Your task to perform on an android device: turn off improve location accuracy Image 0: 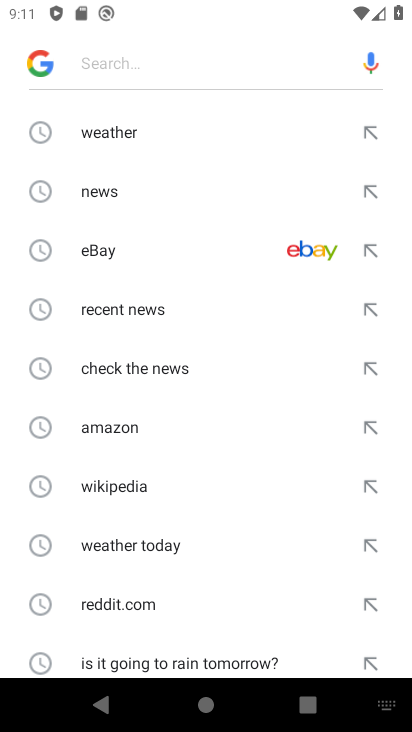
Step 0: press home button
Your task to perform on an android device: turn off improve location accuracy Image 1: 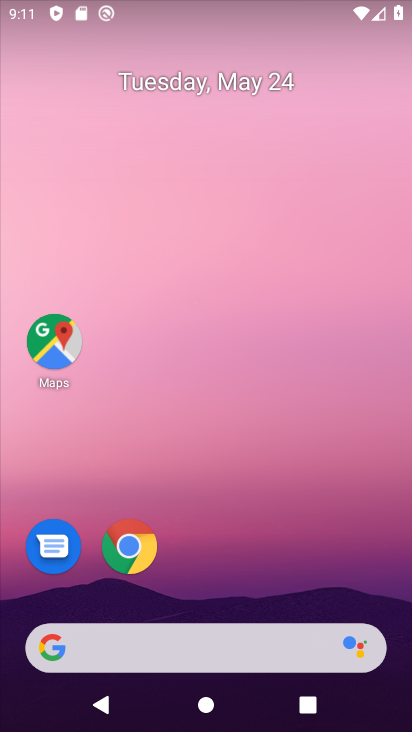
Step 1: drag from (263, 517) to (223, 2)
Your task to perform on an android device: turn off improve location accuracy Image 2: 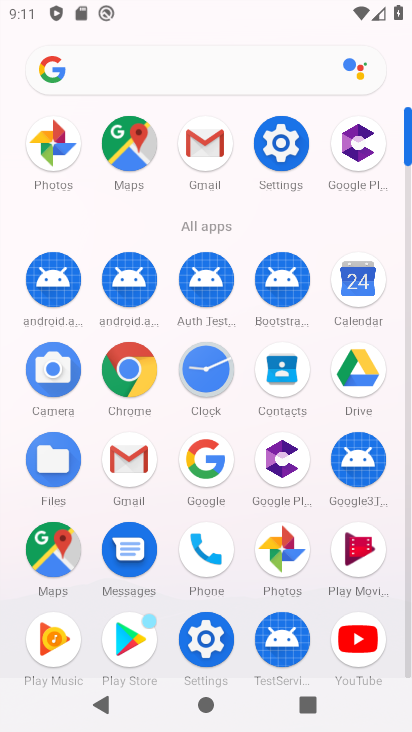
Step 2: click (278, 144)
Your task to perform on an android device: turn off improve location accuracy Image 3: 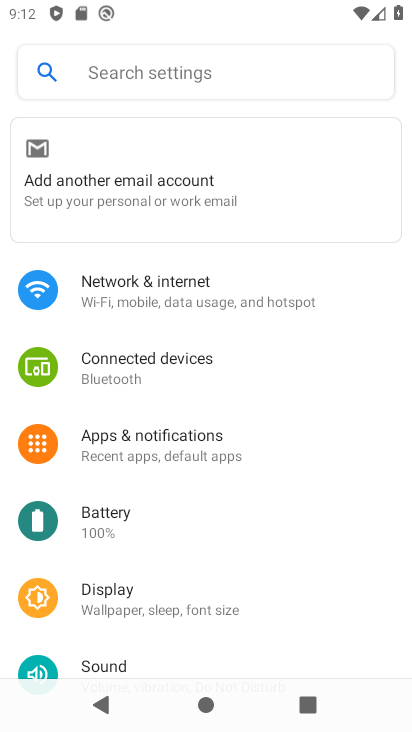
Step 3: drag from (259, 546) to (245, 236)
Your task to perform on an android device: turn off improve location accuracy Image 4: 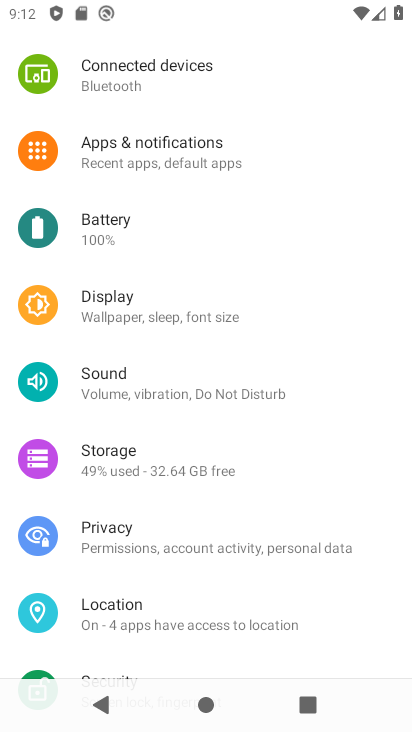
Step 4: click (116, 603)
Your task to perform on an android device: turn off improve location accuracy Image 5: 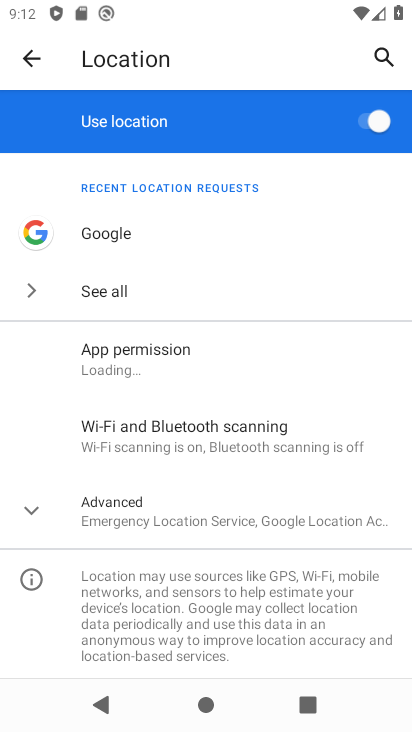
Step 5: click (43, 510)
Your task to perform on an android device: turn off improve location accuracy Image 6: 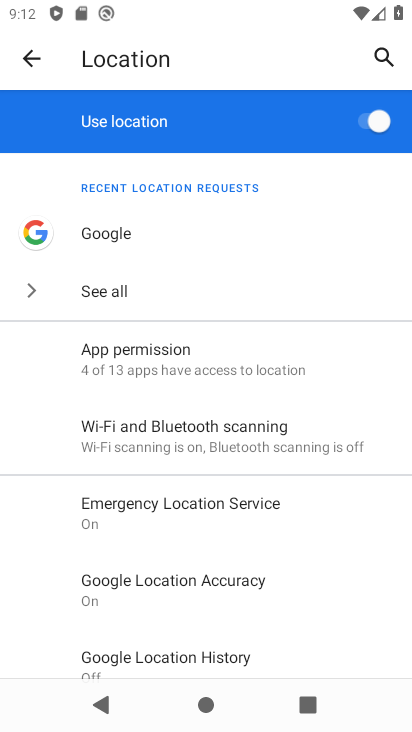
Step 6: drag from (277, 592) to (299, 373)
Your task to perform on an android device: turn off improve location accuracy Image 7: 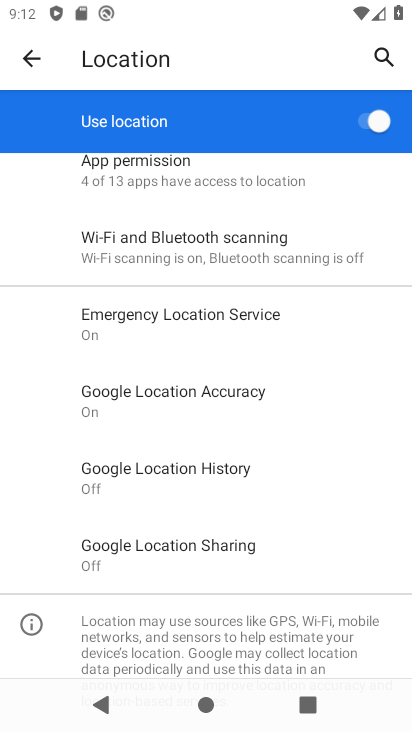
Step 7: click (217, 386)
Your task to perform on an android device: turn off improve location accuracy Image 8: 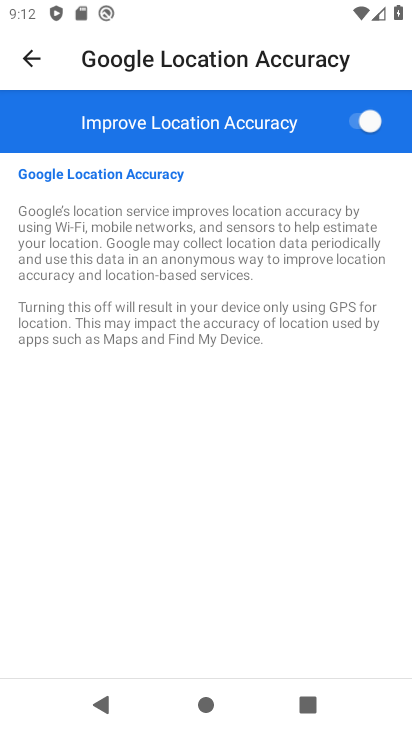
Step 8: click (364, 114)
Your task to perform on an android device: turn off improve location accuracy Image 9: 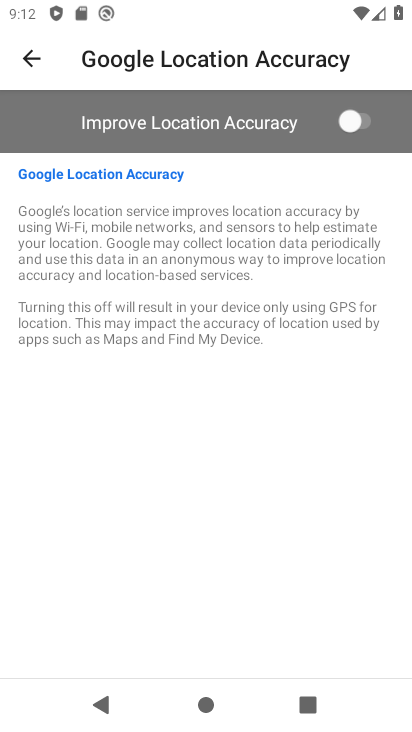
Step 9: task complete